Your task to perform on an android device: set the stopwatch Image 0: 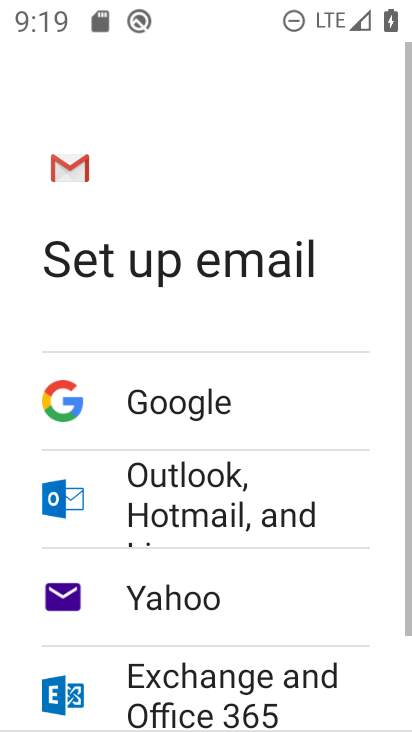
Step 0: press home button
Your task to perform on an android device: set the stopwatch Image 1: 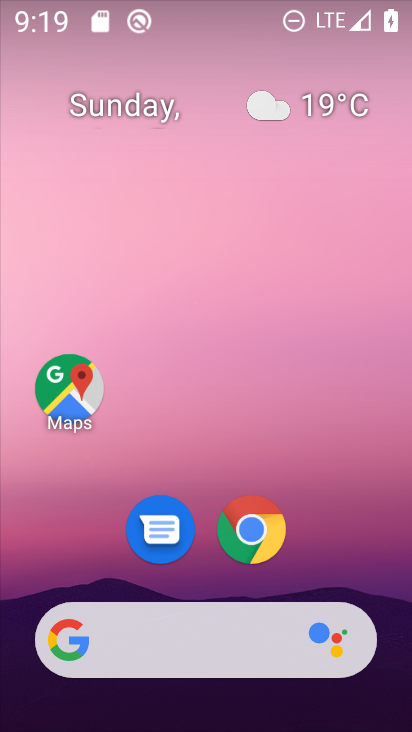
Step 1: drag from (212, 574) to (236, 94)
Your task to perform on an android device: set the stopwatch Image 2: 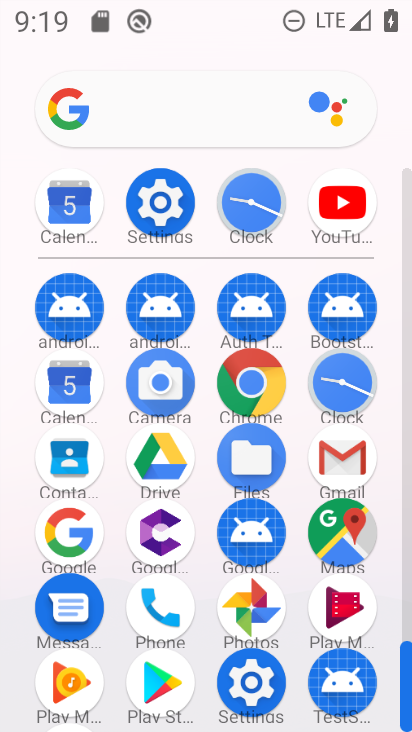
Step 2: click (340, 374)
Your task to perform on an android device: set the stopwatch Image 3: 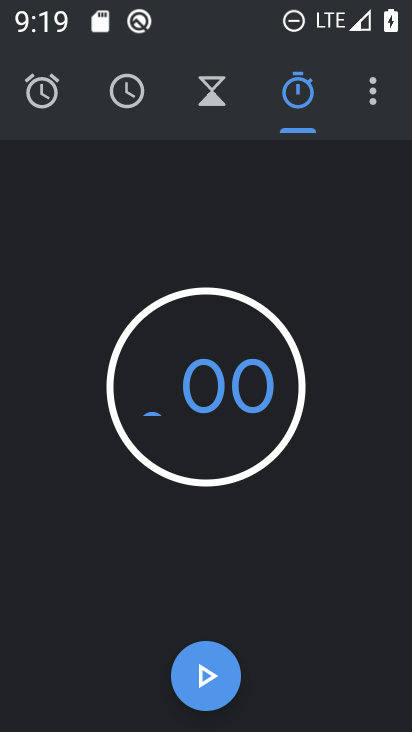
Step 3: click (209, 674)
Your task to perform on an android device: set the stopwatch Image 4: 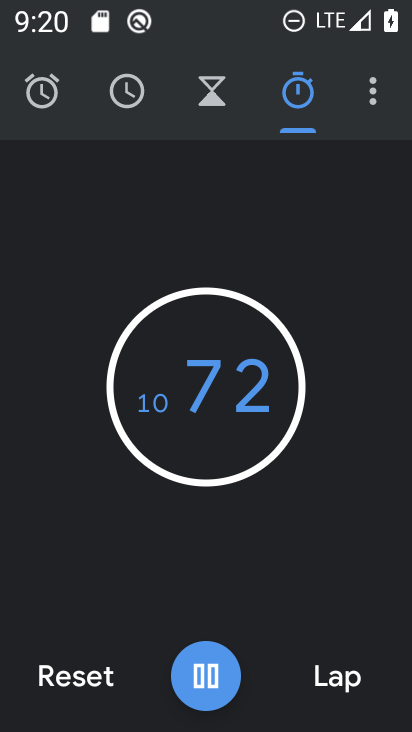
Step 4: task complete